Your task to perform on an android device: open chrome privacy settings Image 0: 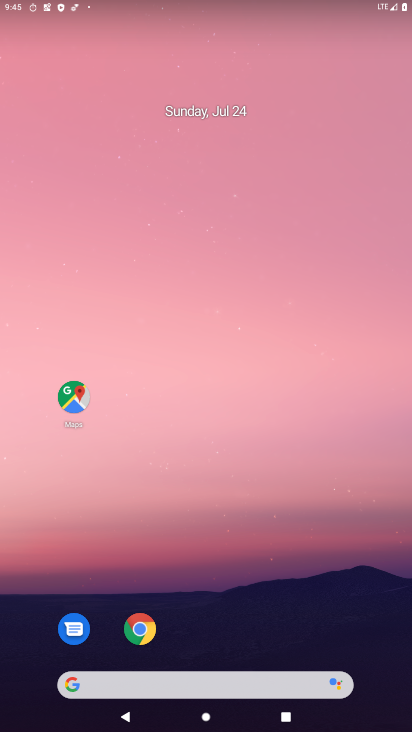
Step 0: press home button
Your task to perform on an android device: open chrome privacy settings Image 1: 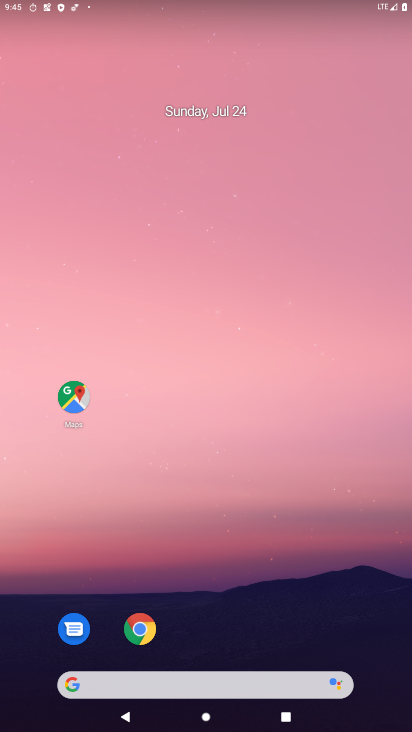
Step 1: click (140, 626)
Your task to perform on an android device: open chrome privacy settings Image 2: 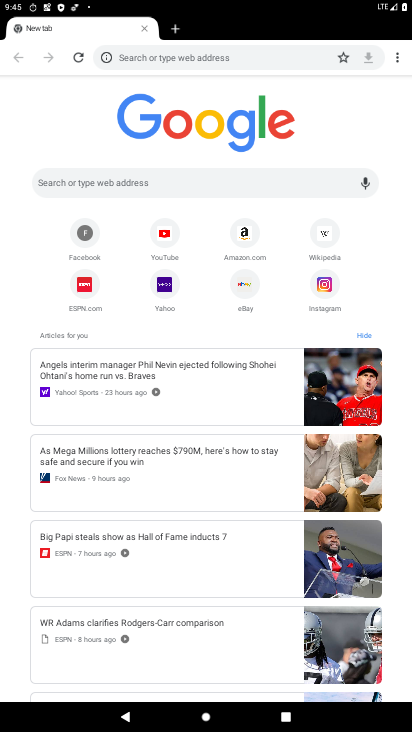
Step 2: drag from (395, 50) to (277, 263)
Your task to perform on an android device: open chrome privacy settings Image 3: 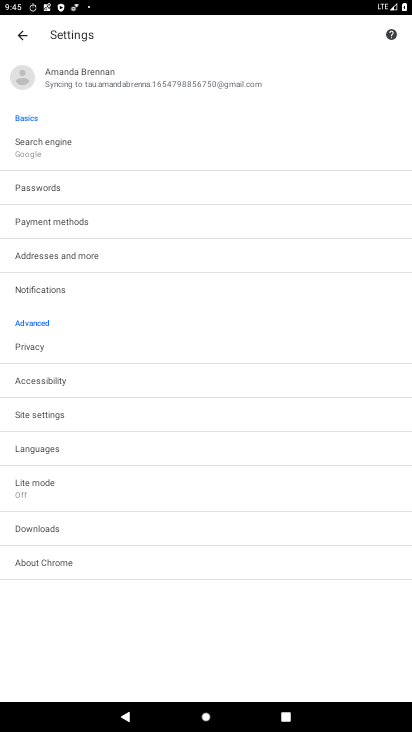
Step 3: click (21, 346)
Your task to perform on an android device: open chrome privacy settings Image 4: 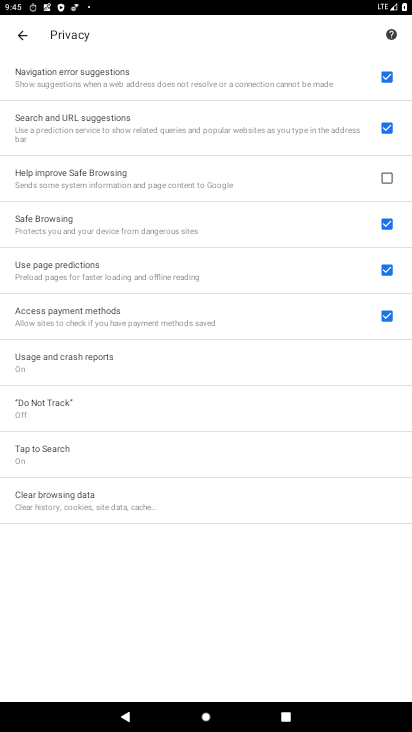
Step 4: task complete